Your task to perform on an android device: Open privacy settings Image 0: 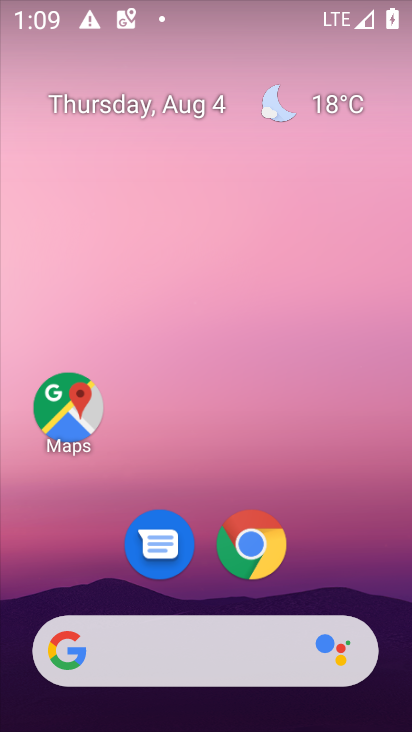
Step 0: drag from (353, 537) to (296, 144)
Your task to perform on an android device: Open privacy settings Image 1: 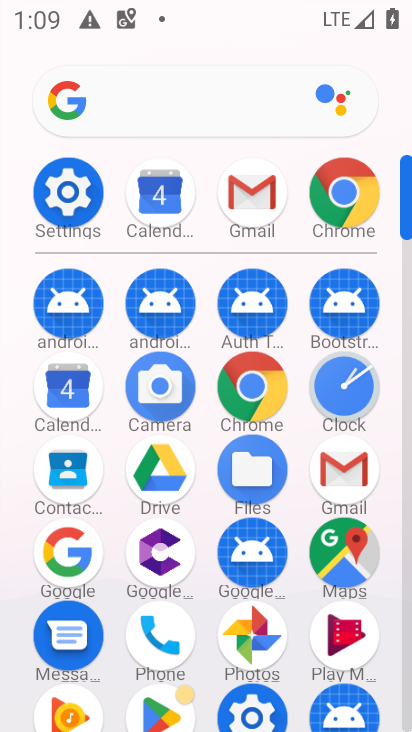
Step 1: click (63, 186)
Your task to perform on an android device: Open privacy settings Image 2: 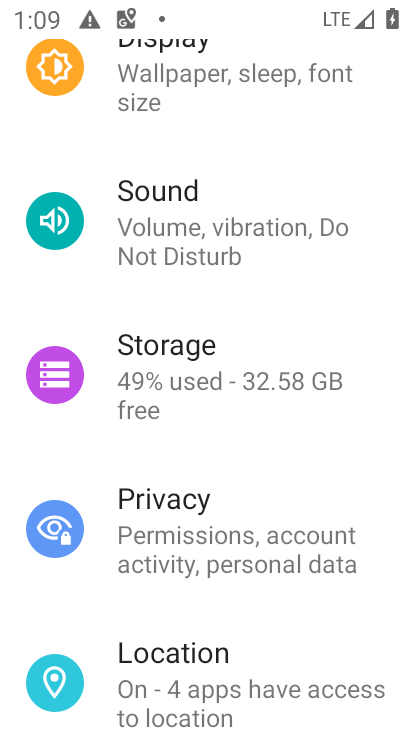
Step 2: drag from (261, 621) to (260, 263)
Your task to perform on an android device: Open privacy settings Image 3: 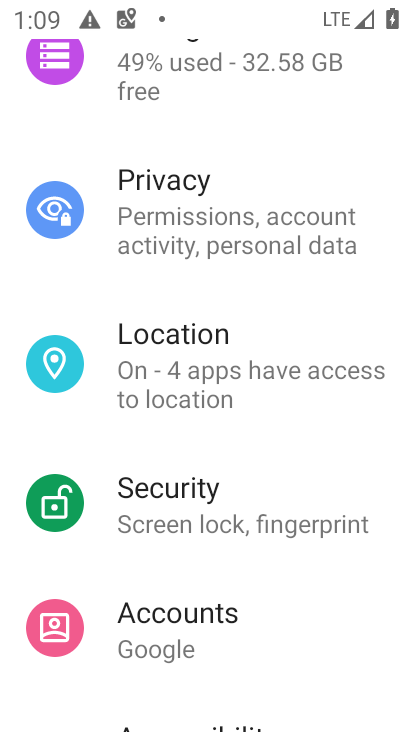
Step 3: click (143, 199)
Your task to perform on an android device: Open privacy settings Image 4: 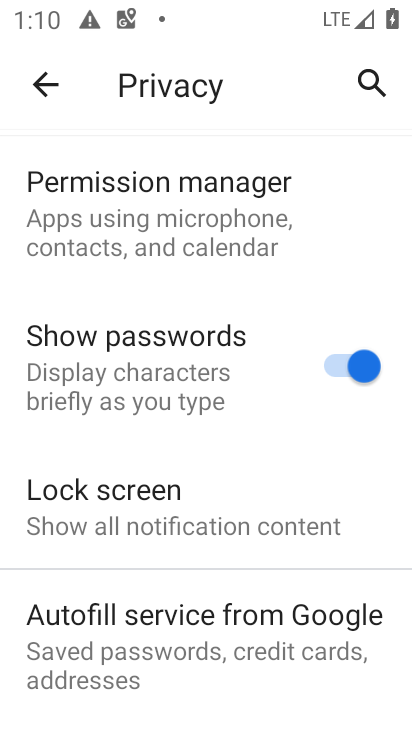
Step 4: task complete